Your task to perform on an android device: toggle improve location accuracy Image 0: 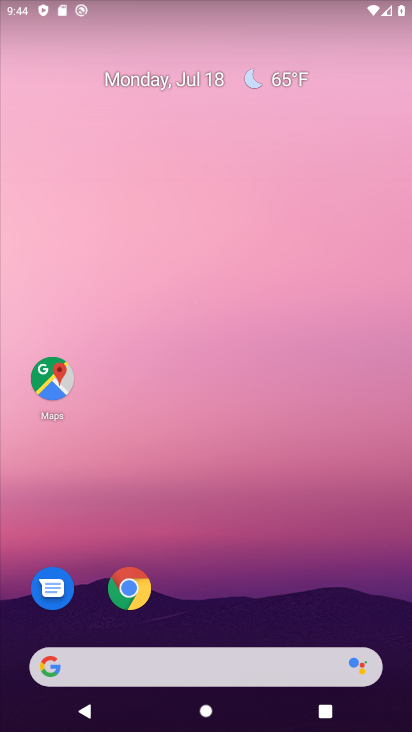
Step 0: press home button
Your task to perform on an android device: toggle improve location accuracy Image 1: 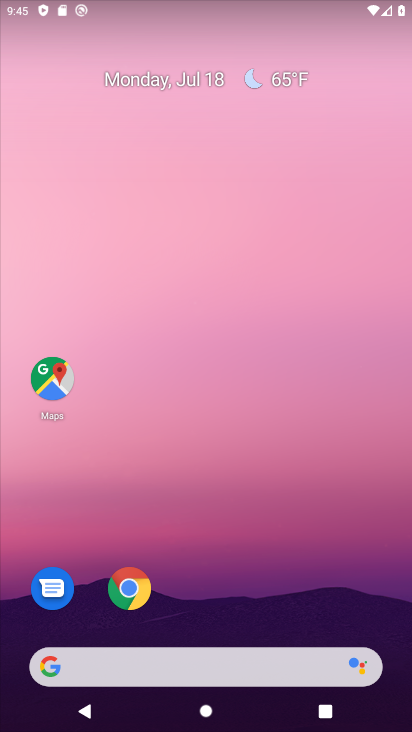
Step 1: drag from (208, 637) to (258, 89)
Your task to perform on an android device: toggle improve location accuracy Image 2: 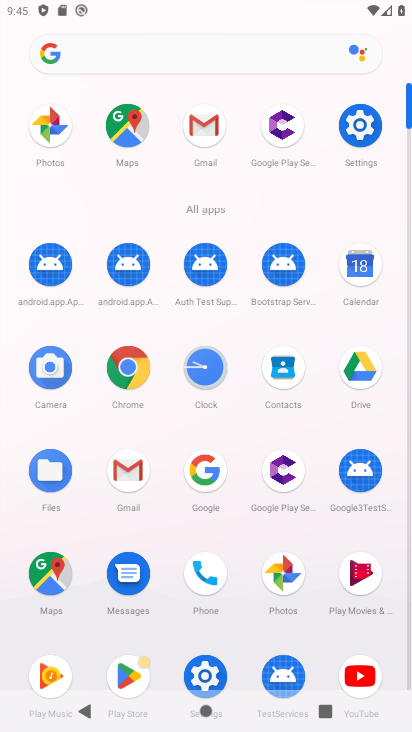
Step 2: click (360, 130)
Your task to perform on an android device: toggle improve location accuracy Image 3: 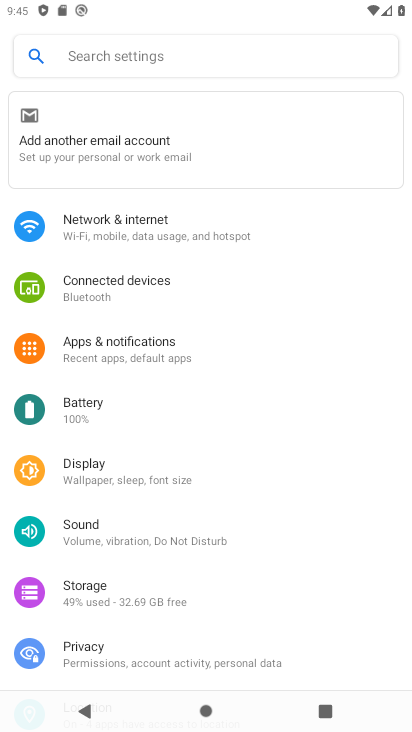
Step 3: drag from (314, 591) to (324, 159)
Your task to perform on an android device: toggle improve location accuracy Image 4: 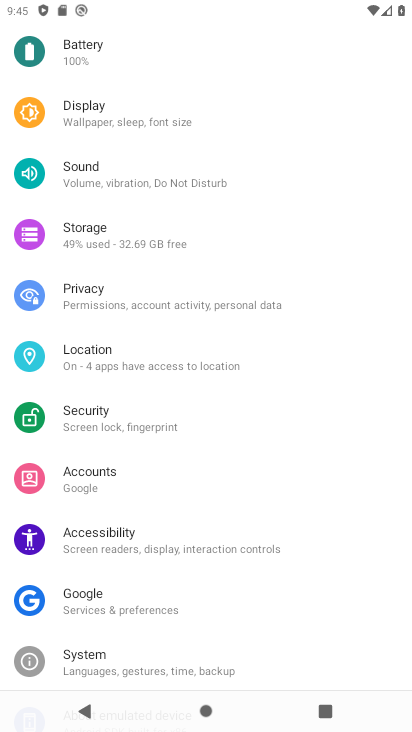
Step 4: click (104, 365)
Your task to perform on an android device: toggle improve location accuracy Image 5: 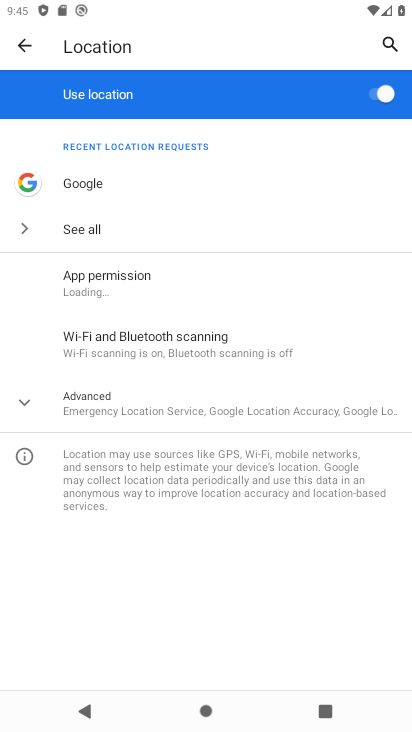
Step 5: click (98, 410)
Your task to perform on an android device: toggle improve location accuracy Image 6: 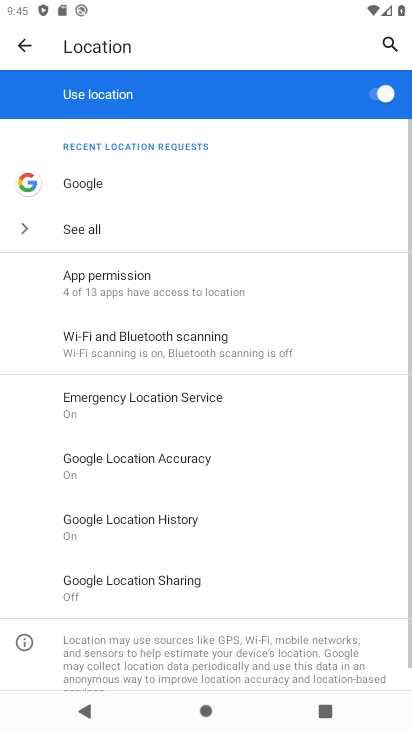
Step 6: click (108, 464)
Your task to perform on an android device: toggle improve location accuracy Image 7: 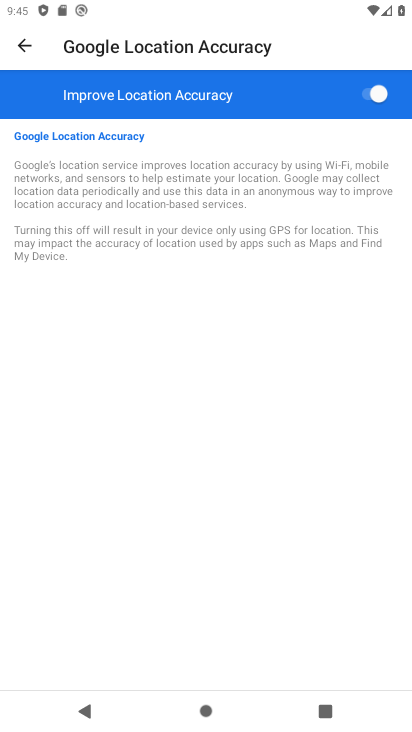
Step 7: click (385, 98)
Your task to perform on an android device: toggle improve location accuracy Image 8: 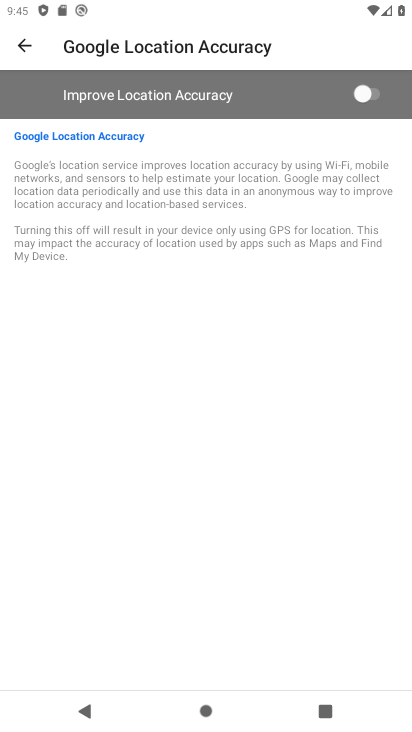
Step 8: task complete